Your task to perform on an android device: What's on my calendar tomorrow? Image 0: 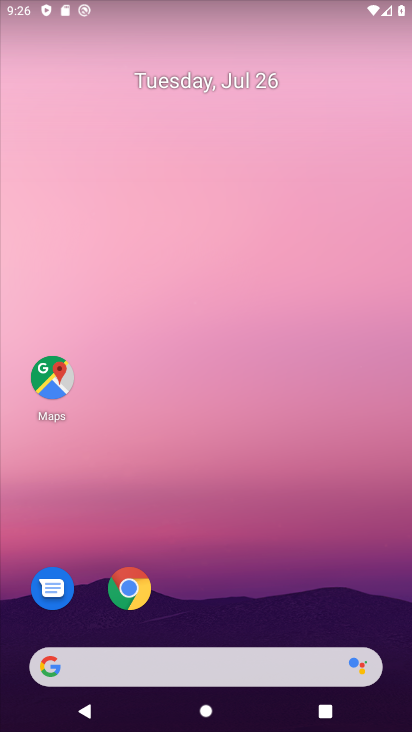
Step 0: drag from (220, 653) to (220, 296)
Your task to perform on an android device: What's on my calendar tomorrow? Image 1: 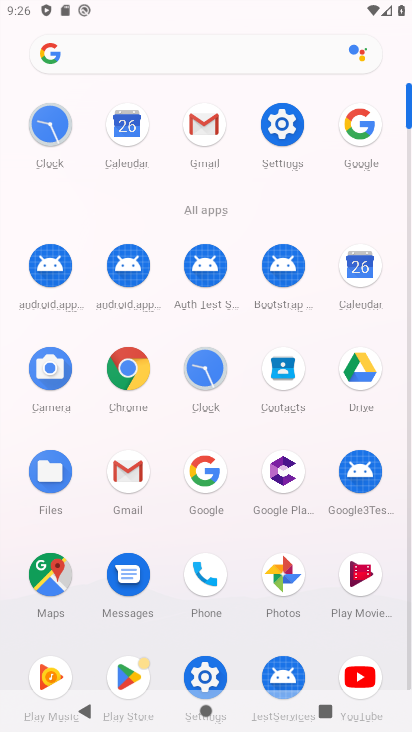
Step 1: click (369, 260)
Your task to perform on an android device: What's on my calendar tomorrow? Image 2: 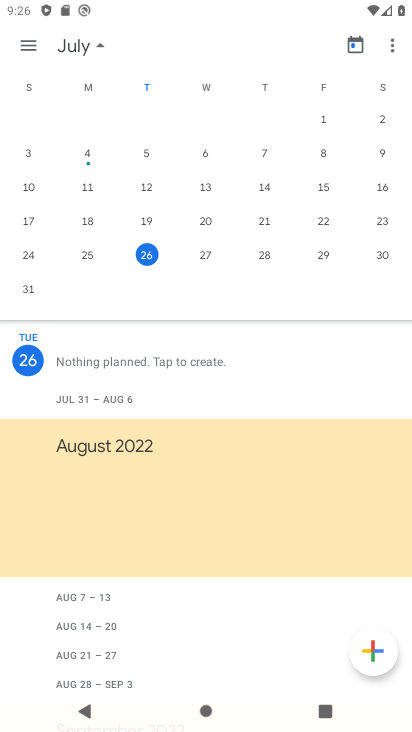
Step 2: click (203, 258)
Your task to perform on an android device: What's on my calendar tomorrow? Image 3: 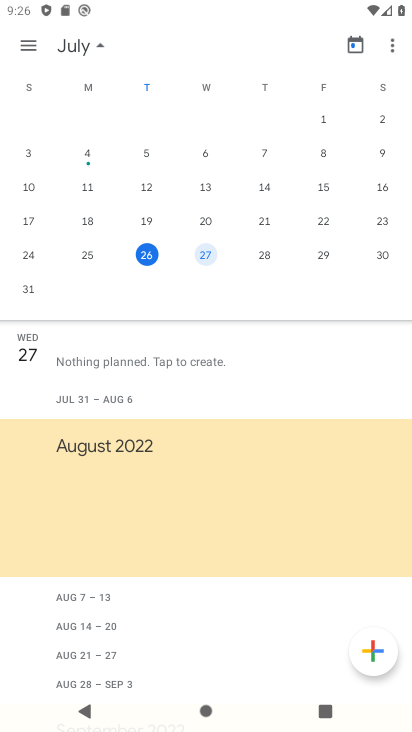
Step 3: task complete